Your task to perform on an android device: turn on notifications settings in the gmail app Image 0: 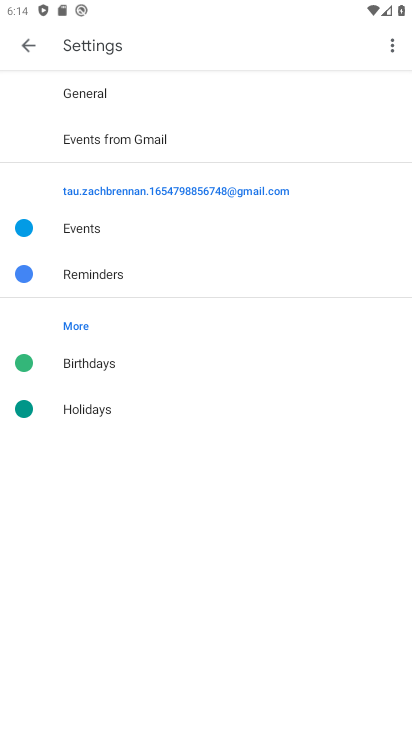
Step 0: press home button
Your task to perform on an android device: turn on notifications settings in the gmail app Image 1: 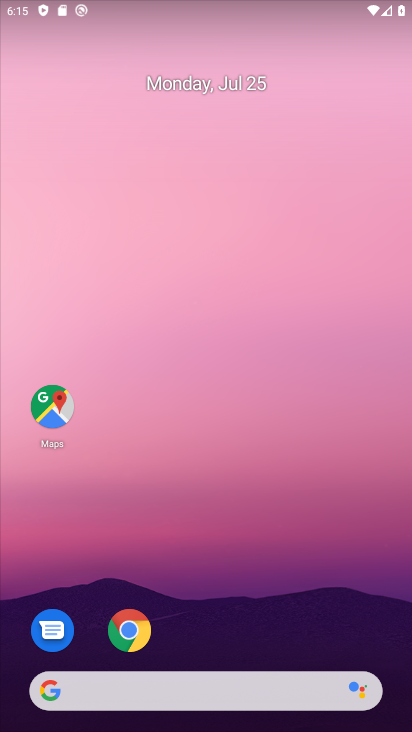
Step 1: drag from (188, 684) to (255, 53)
Your task to perform on an android device: turn on notifications settings in the gmail app Image 2: 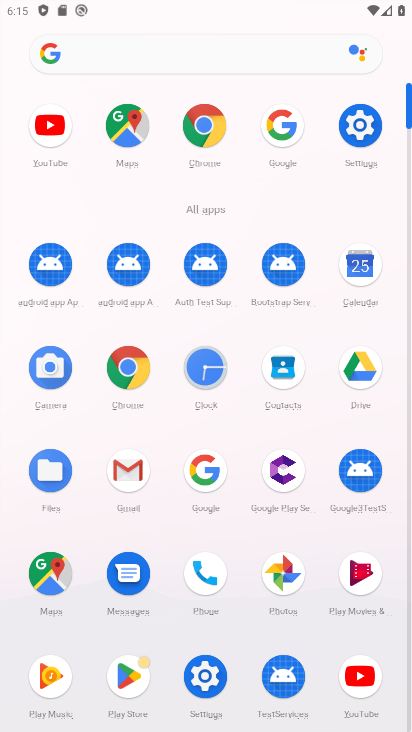
Step 2: click (127, 467)
Your task to perform on an android device: turn on notifications settings in the gmail app Image 3: 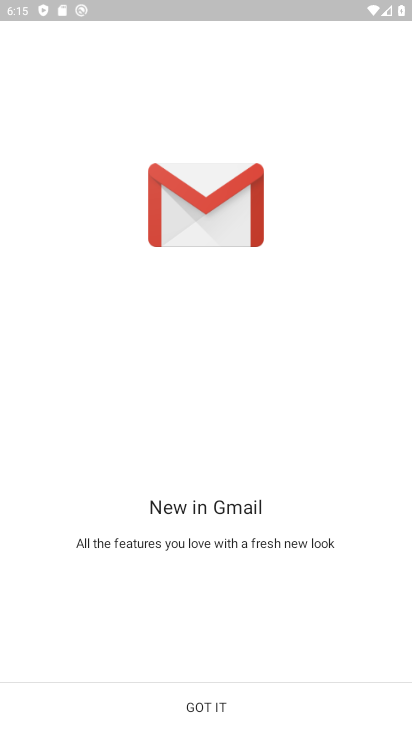
Step 3: click (199, 715)
Your task to perform on an android device: turn on notifications settings in the gmail app Image 4: 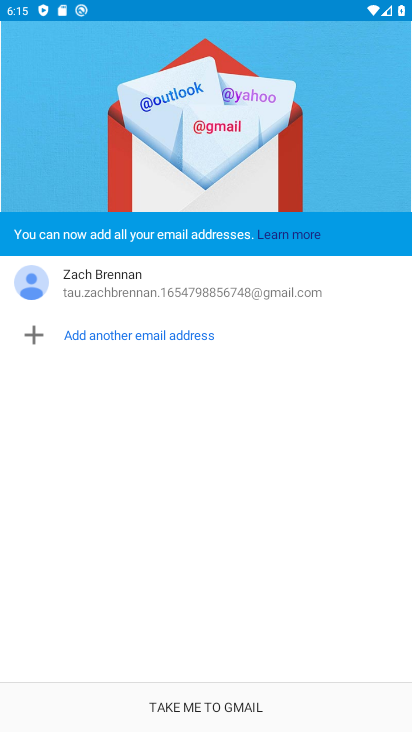
Step 4: click (199, 705)
Your task to perform on an android device: turn on notifications settings in the gmail app Image 5: 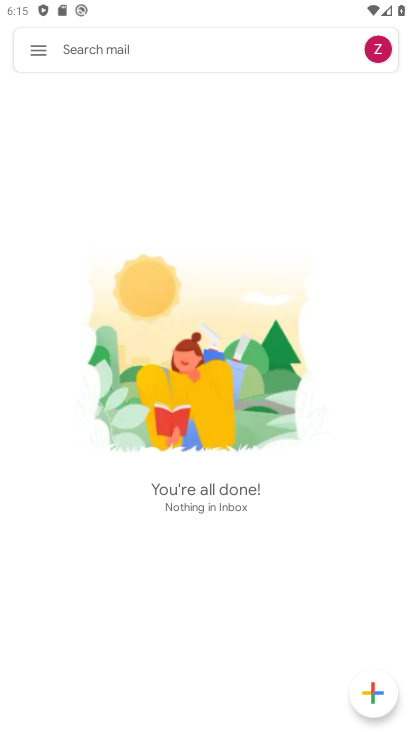
Step 5: click (35, 50)
Your task to perform on an android device: turn on notifications settings in the gmail app Image 6: 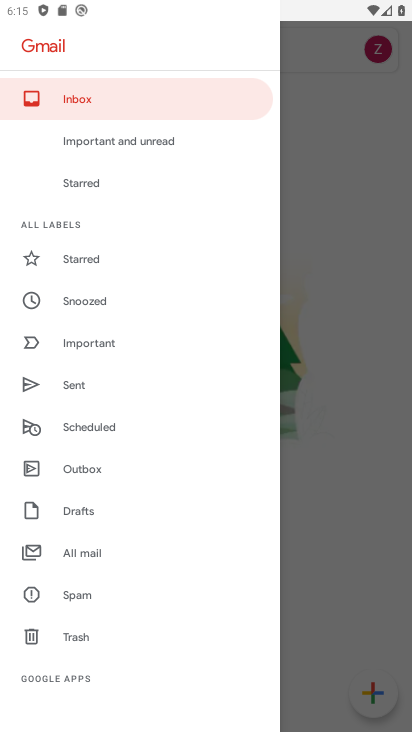
Step 6: drag from (86, 616) to (169, 430)
Your task to perform on an android device: turn on notifications settings in the gmail app Image 7: 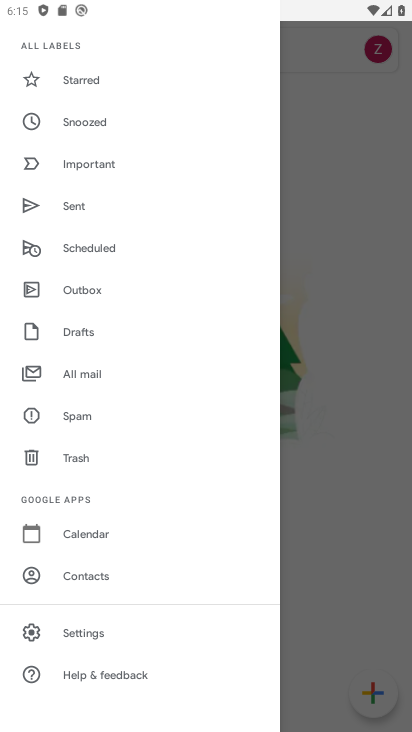
Step 7: click (81, 635)
Your task to perform on an android device: turn on notifications settings in the gmail app Image 8: 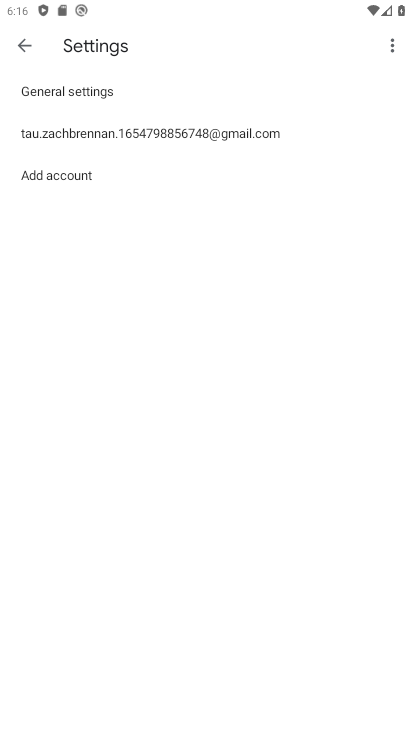
Step 8: click (50, 138)
Your task to perform on an android device: turn on notifications settings in the gmail app Image 9: 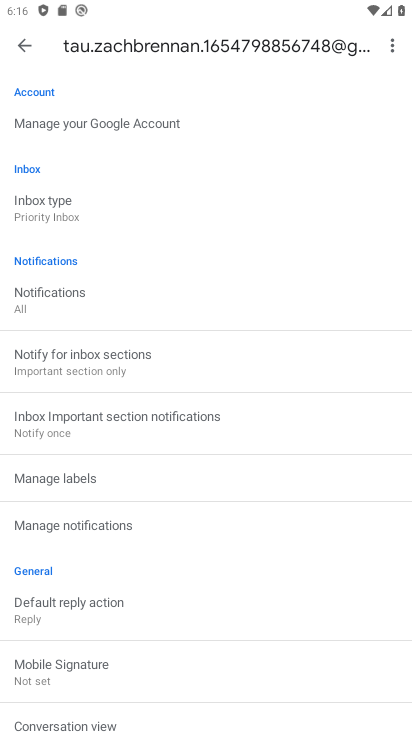
Step 9: click (74, 527)
Your task to perform on an android device: turn on notifications settings in the gmail app Image 10: 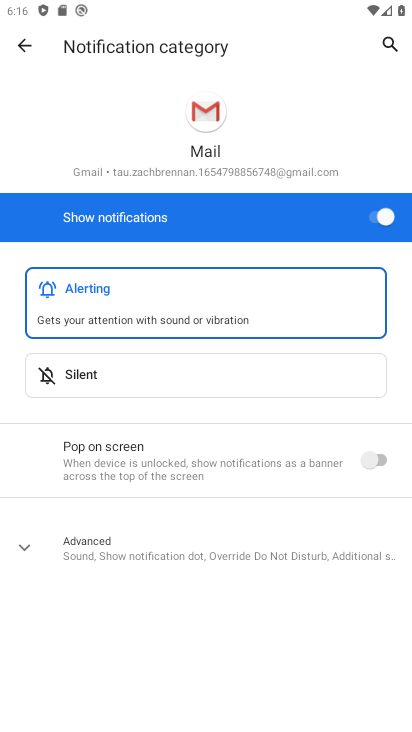
Step 10: task complete